Your task to perform on an android device: turn off notifications settings in the gmail app Image 0: 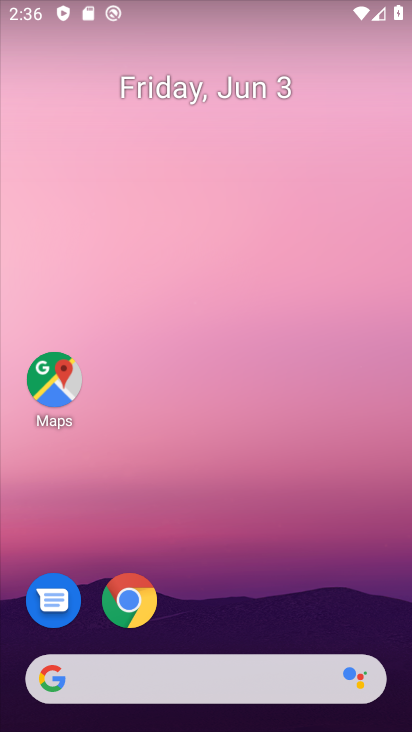
Step 0: drag from (275, 611) to (279, 251)
Your task to perform on an android device: turn off notifications settings in the gmail app Image 1: 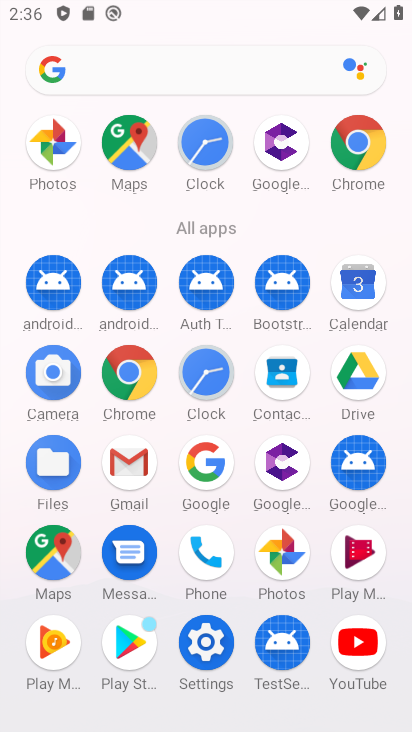
Step 1: click (126, 457)
Your task to perform on an android device: turn off notifications settings in the gmail app Image 2: 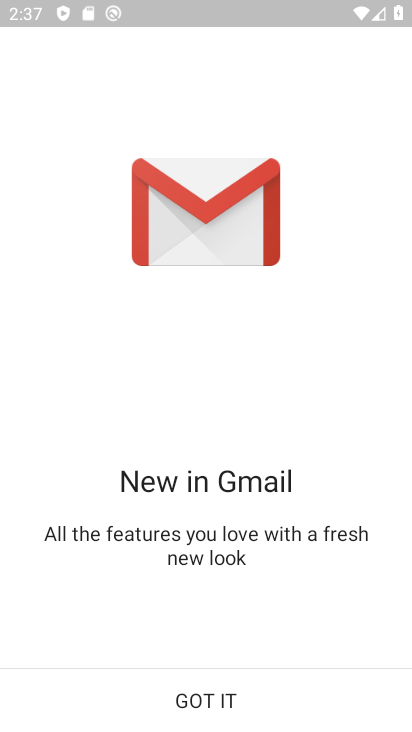
Step 2: click (232, 684)
Your task to perform on an android device: turn off notifications settings in the gmail app Image 3: 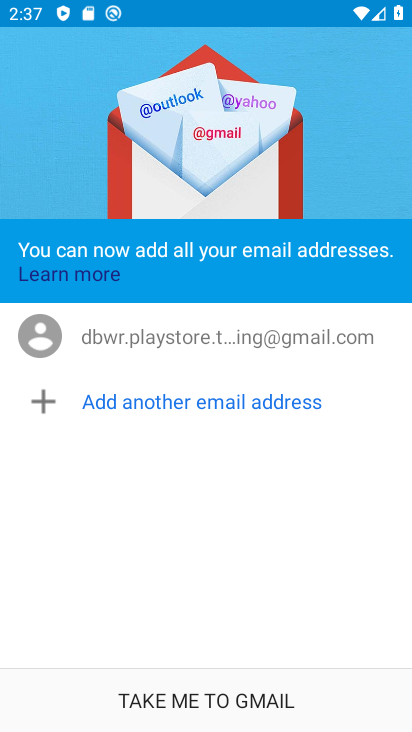
Step 3: click (232, 684)
Your task to perform on an android device: turn off notifications settings in the gmail app Image 4: 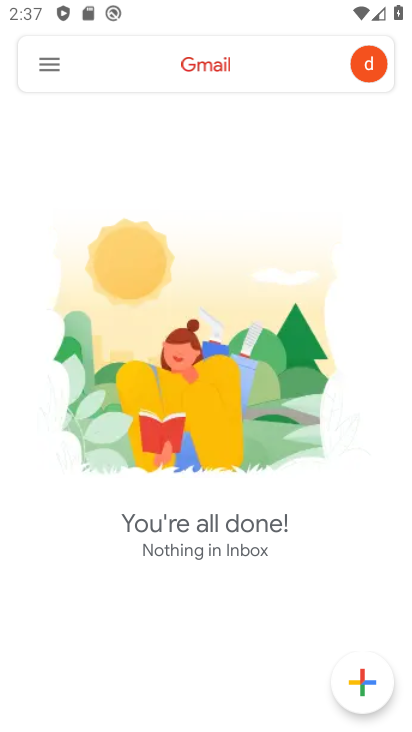
Step 4: click (55, 62)
Your task to perform on an android device: turn off notifications settings in the gmail app Image 5: 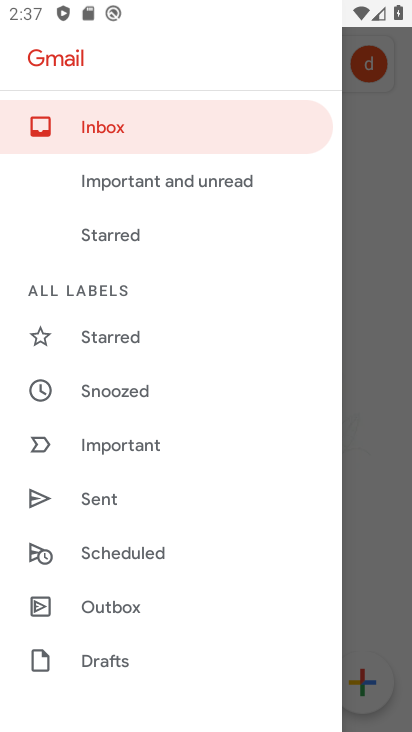
Step 5: drag from (147, 489) to (138, 239)
Your task to perform on an android device: turn off notifications settings in the gmail app Image 6: 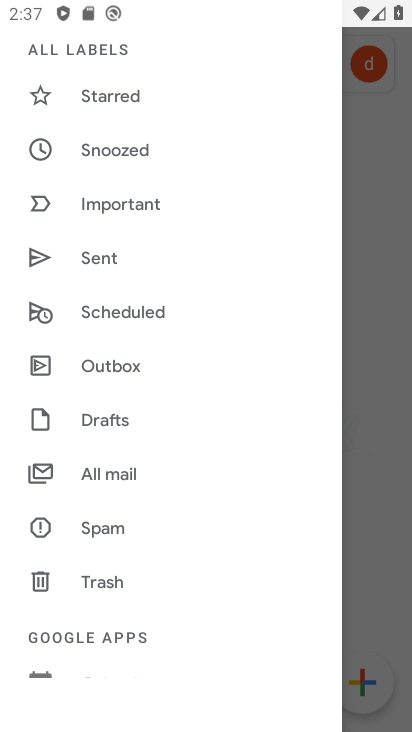
Step 6: drag from (135, 601) to (143, 324)
Your task to perform on an android device: turn off notifications settings in the gmail app Image 7: 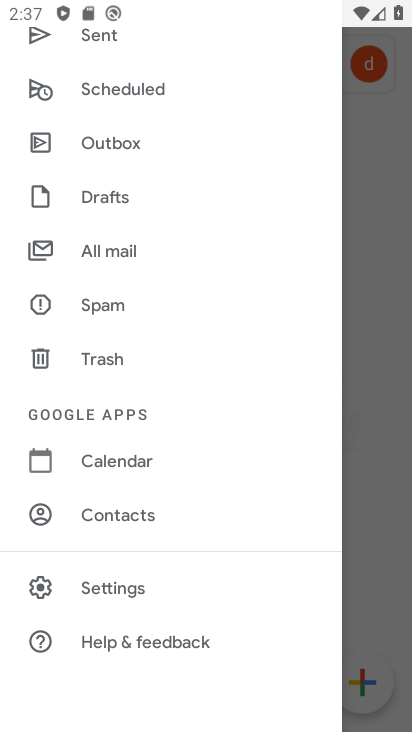
Step 7: click (129, 582)
Your task to perform on an android device: turn off notifications settings in the gmail app Image 8: 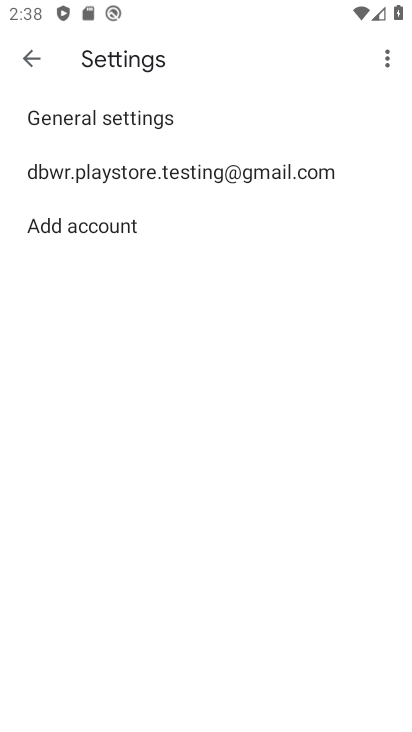
Step 8: click (181, 188)
Your task to perform on an android device: turn off notifications settings in the gmail app Image 9: 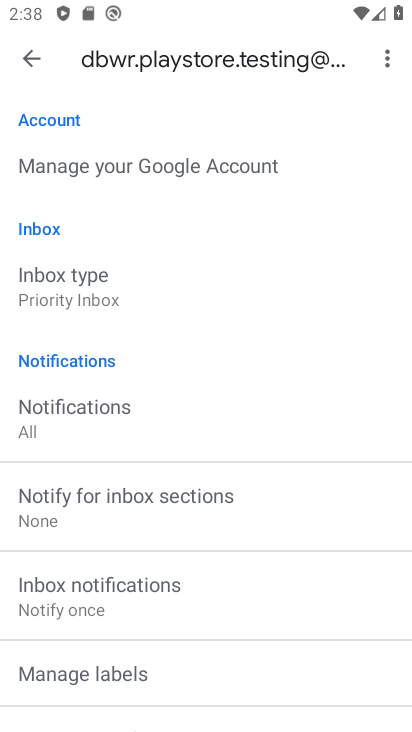
Step 9: drag from (169, 649) to (158, 568)
Your task to perform on an android device: turn off notifications settings in the gmail app Image 10: 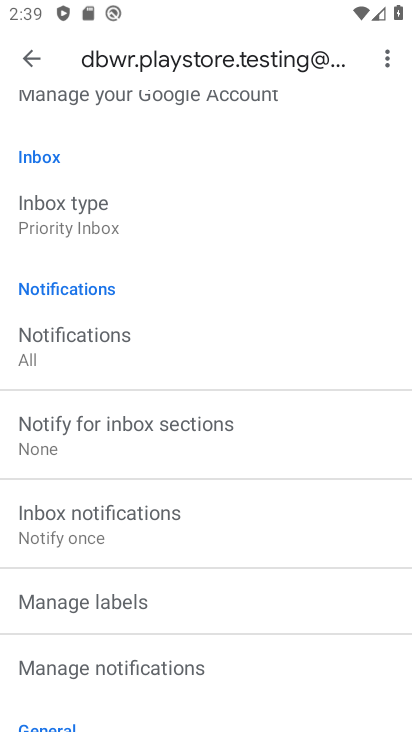
Step 10: click (67, 578)
Your task to perform on an android device: turn off notifications settings in the gmail app Image 11: 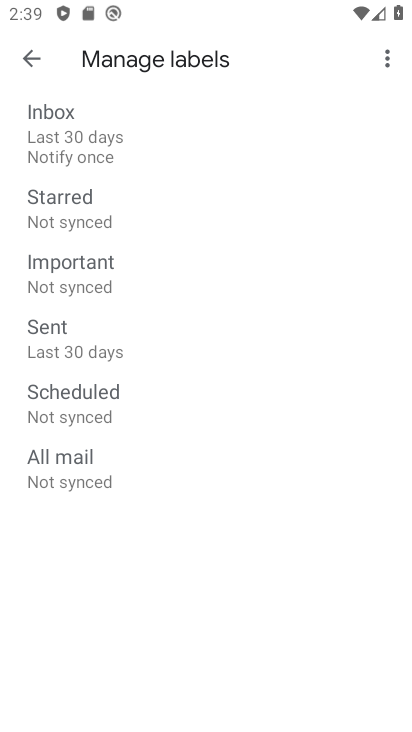
Step 11: click (28, 37)
Your task to perform on an android device: turn off notifications settings in the gmail app Image 12: 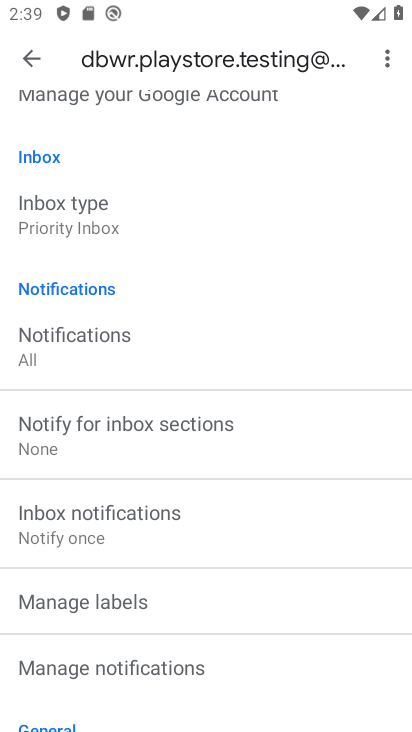
Step 12: click (169, 645)
Your task to perform on an android device: turn off notifications settings in the gmail app Image 13: 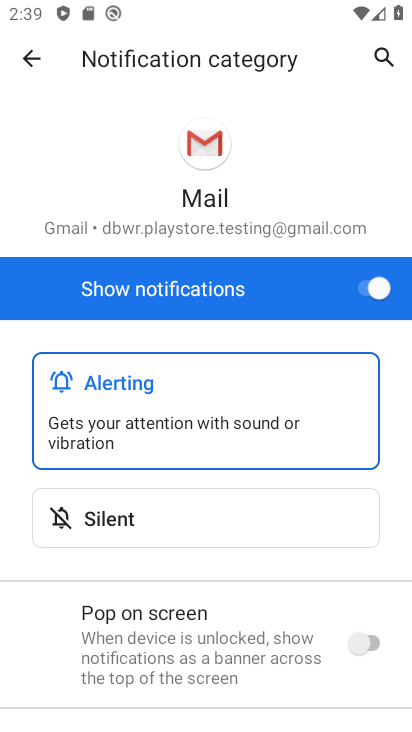
Step 13: click (375, 295)
Your task to perform on an android device: turn off notifications settings in the gmail app Image 14: 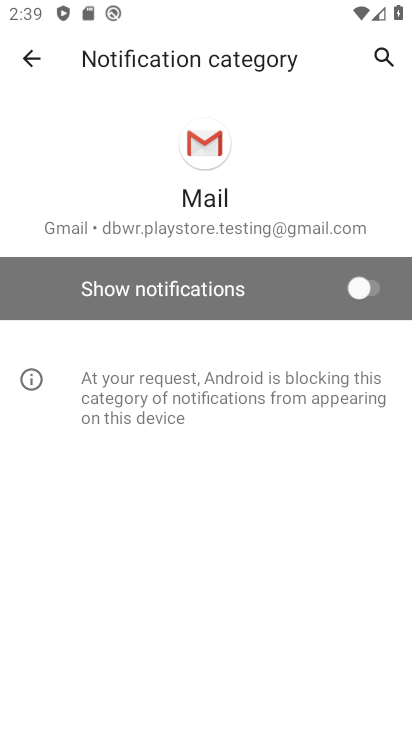
Step 14: task complete